Your task to perform on an android device: Go to Reddit.com Image 0: 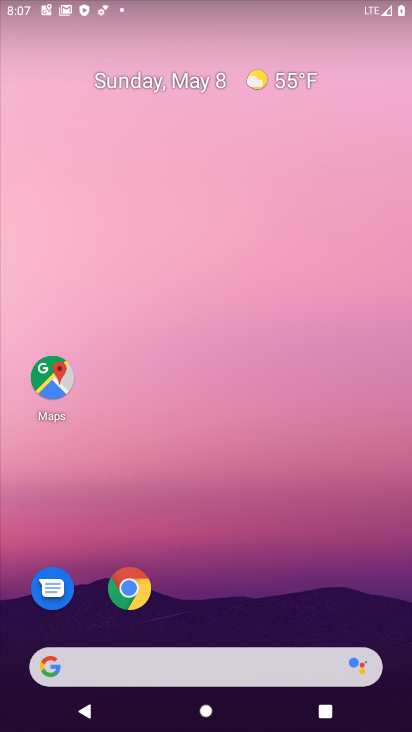
Step 0: drag from (317, 618) to (264, 16)
Your task to perform on an android device: Go to Reddit.com Image 1: 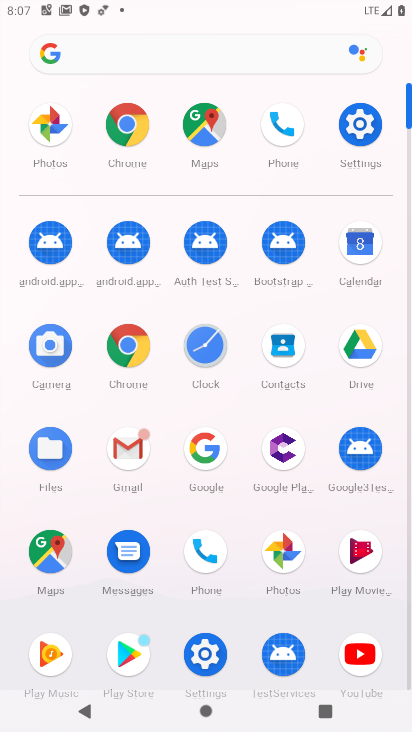
Step 1: click (129, 133)
Your task to perform on an android device: Go to Reddit.com Image 2: 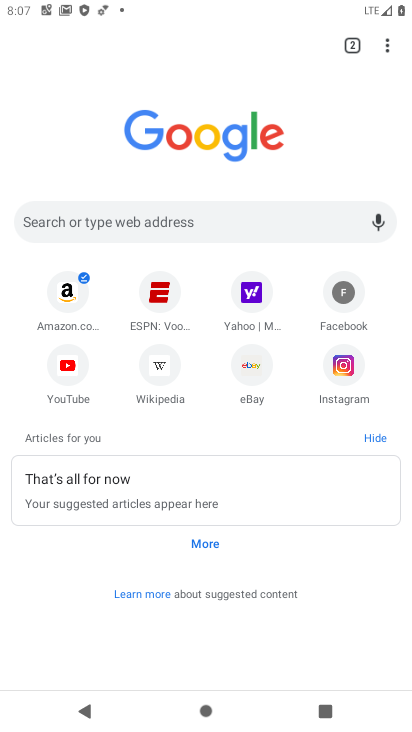
Step 2: click (183, 223)
Your task to perform on an android device: Go to Reddit.com Image 3: 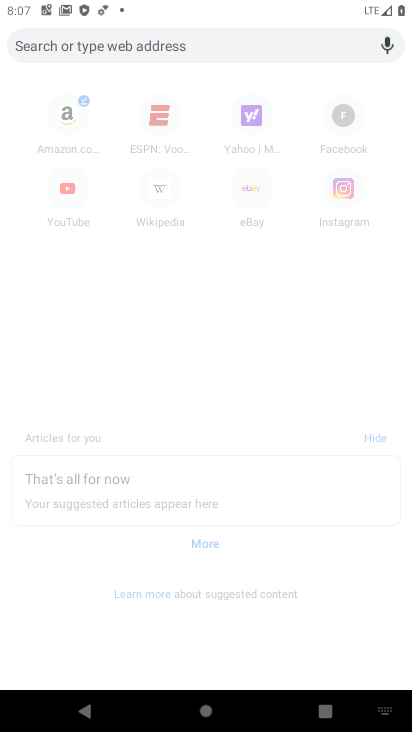
Step 3: type "reddit.com"
Your task to perform on an android device: Go to Reddit.com Image 4: 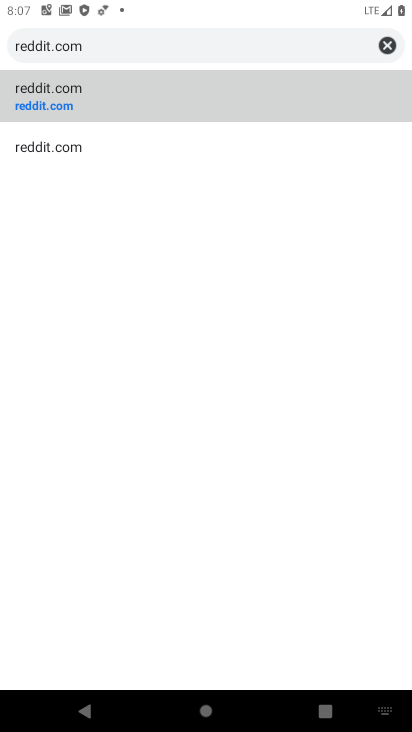
Step 4: click (105, 105)
Your task to perform on an android device: Go to Reddit.com Image 5: 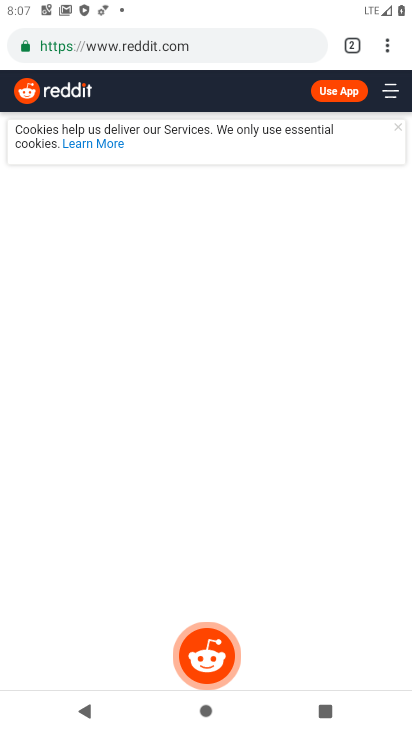
Step 5: task complete